Your task to perform on an android device: turn off notifications settings in the gmail app Image 0: 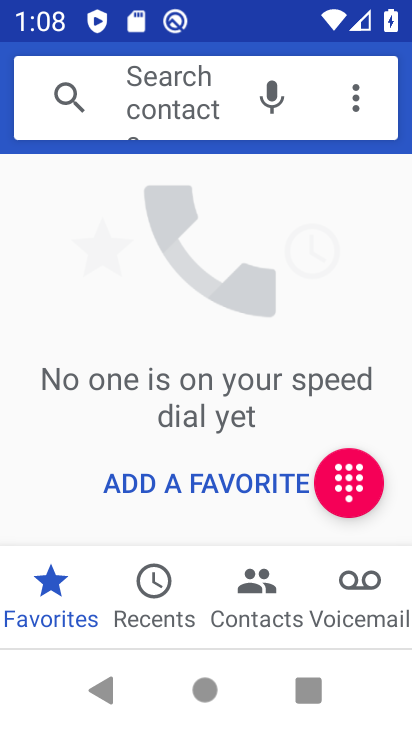
Step 0: press home button
Your task to perform on an android device: turn off notifications settings in the gmail app Image 1: 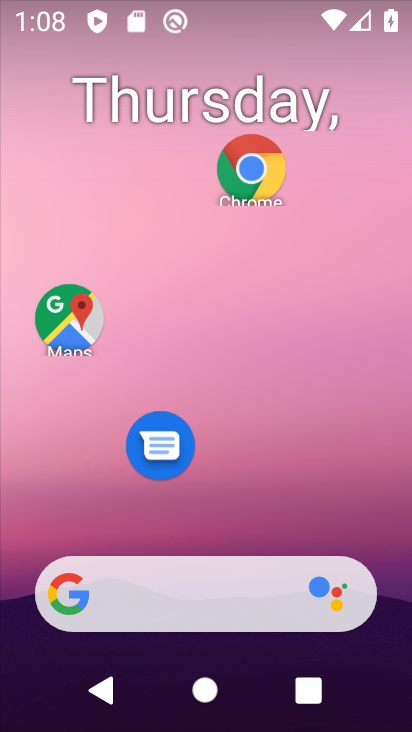
Step 1: drag from (279, 652) to (300, 255)
Your task to perform on an android device: turn off notifications settings in the gmail app Image 2: 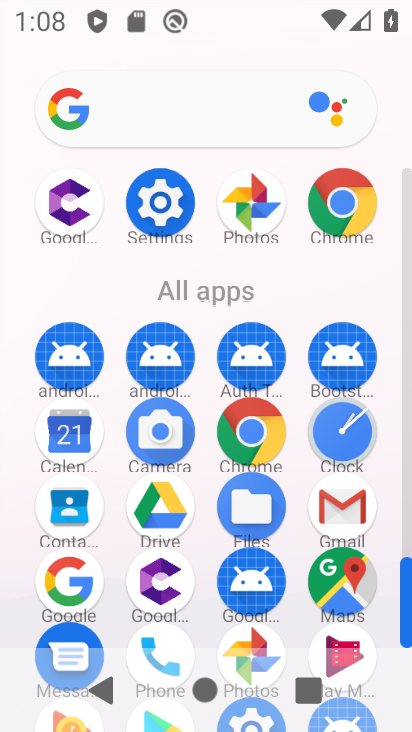
Step 2: click (331, 495)
Your task to perform on an android device: turn off notifications settings in the gmail app Image 3: 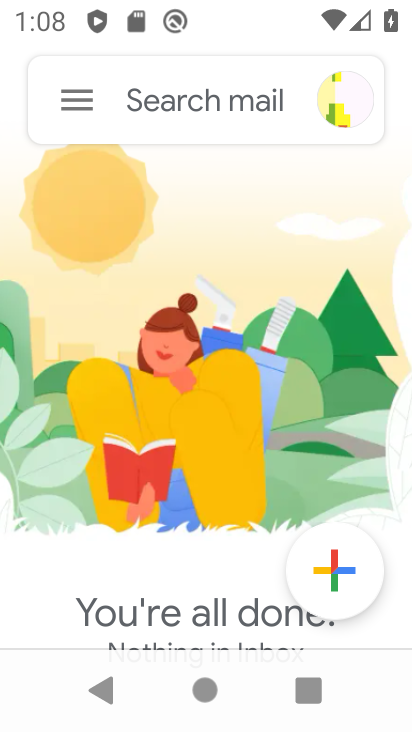
Step 3: drag from (228, 412) to (159, 347)
Your task to perform on an android device: turn off notifications settings in the gmail app Image 4: 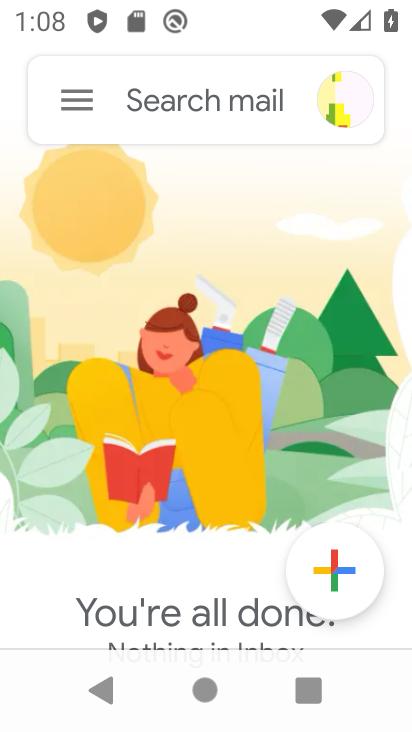
Step 4: click (78, 98)
Your task to perform on an android device: turn off notifications settings in the gmail app Image 5: 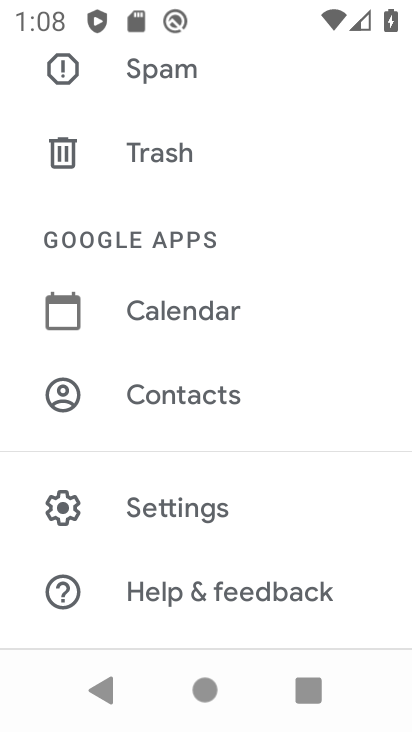
Step 5: click (155, 513)
Your task to perform on an android device: turn off notifications settings in the gmail app Image 6: 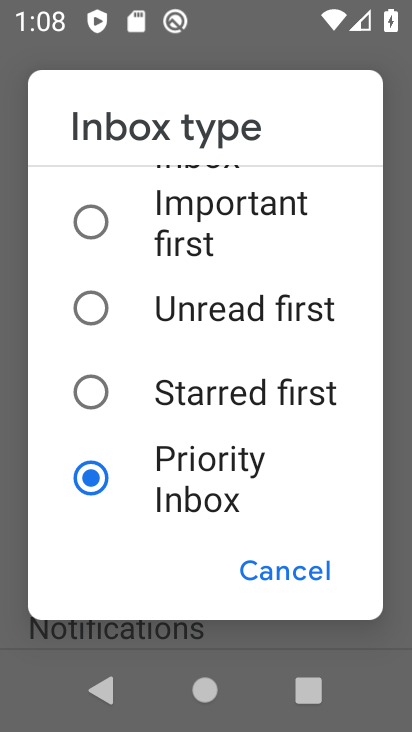
Step 6: click (262, 563)
Your task to perform on an android device: turn off notifications settings in the gmail app Image 7: 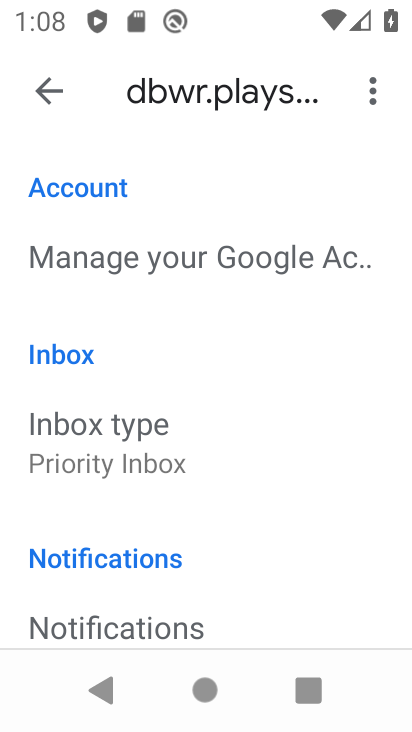
Step 7: drag from (185, 552) to (245, 384)
Your task to perform on an android device: turn off notifications settings in the gmail app Image 8: 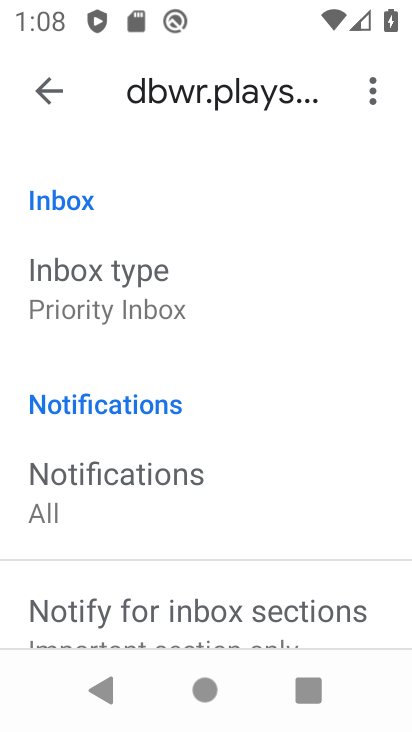
Step 8: click (112, 470)
Your task to perform on an android device: turn off notifications settings in the gmail app Image 9: 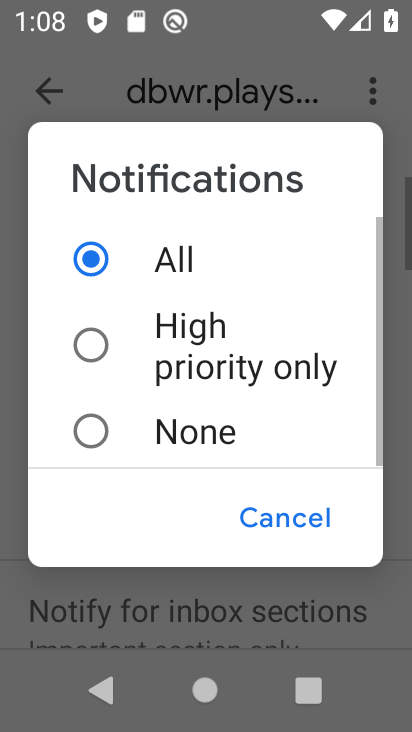
Step 9: click (163, 422)
Your task to perform on an android device: turn off notifications settings in the gmail app Image 10: 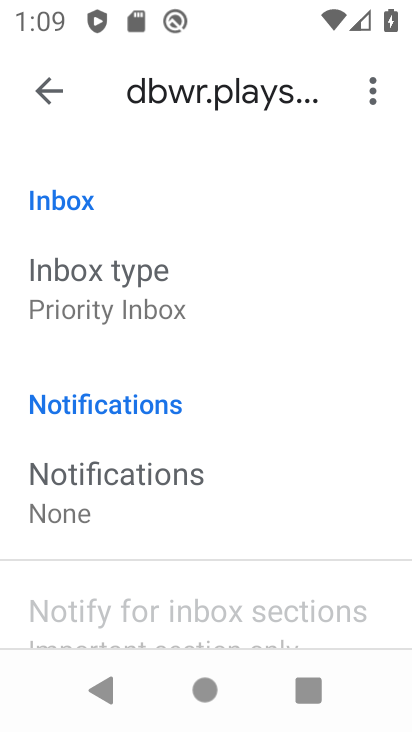
Step 10: task complete